Your task to perform on an android device: turn off javascript in the chrome app Image 0: 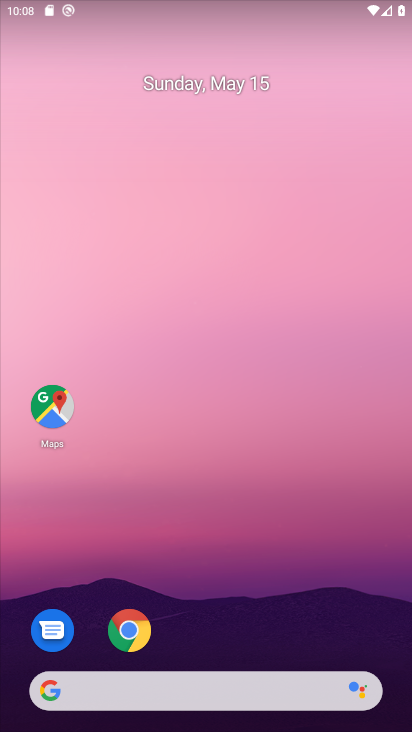
Step 0: click (125, 625)
Your task to perform on an android device: turn off javascript in the chrome app Image 1: 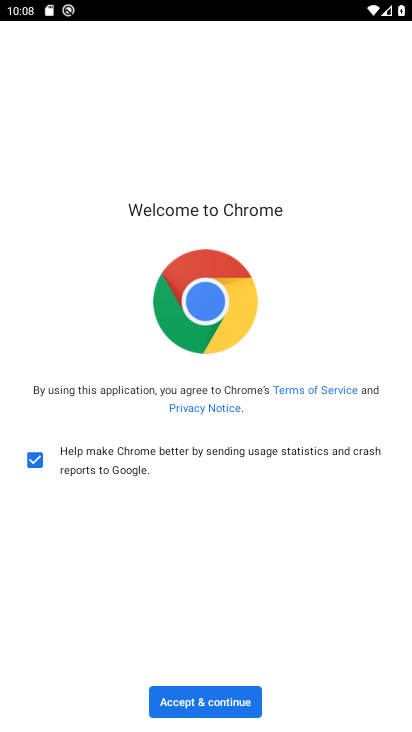
Step 1: click (201, 698)
Your task to perform on an android device: turn off javascript in the chrome app Image 2: 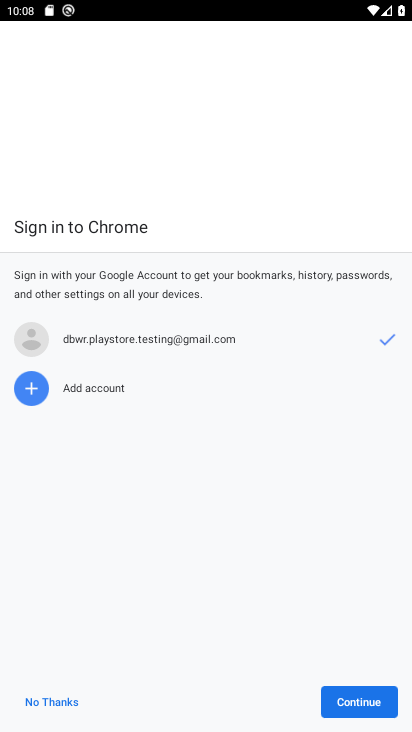
Step 2: click (361, 701)
Your task to perform on an android device: turn off javascript in the chrome app Image 3: 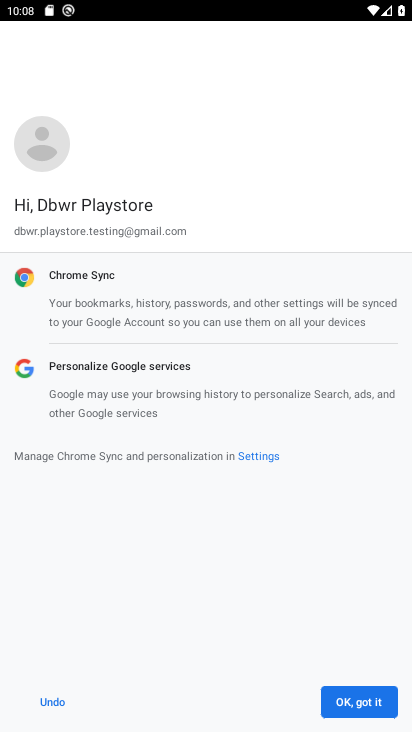
Step 3: click (358, 707)
Your task to perform on an android device: turn off javascript in the chrome app Image 4: 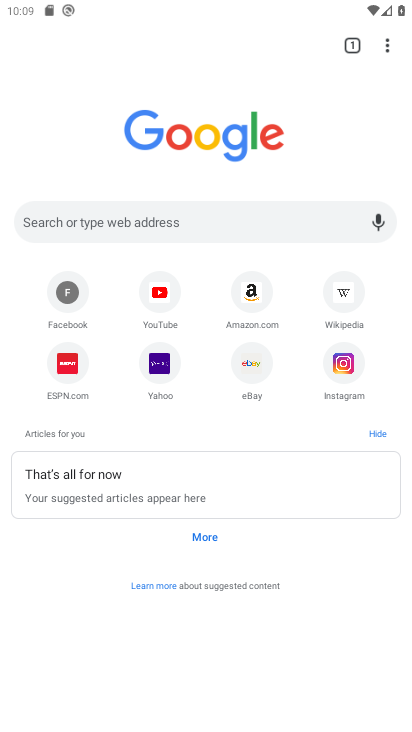
Step 4: click (386, 41)
Your task to perform on an android device: turn off javascript in the chrome app Image 5: 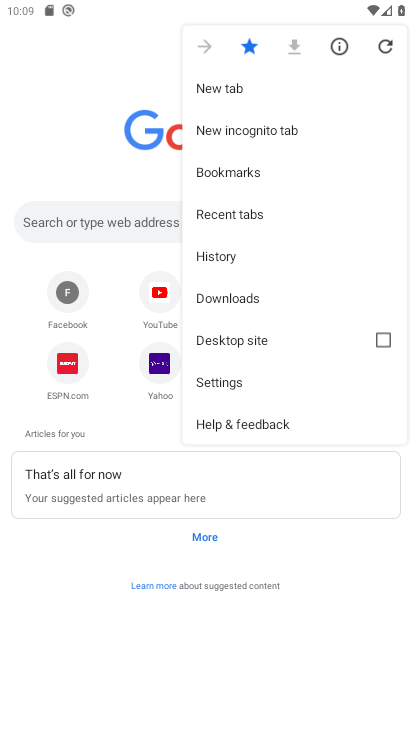
Step 5: click (249, 381)
Your task to perform on an android device: turn off javascript in the chrome app Image 6: 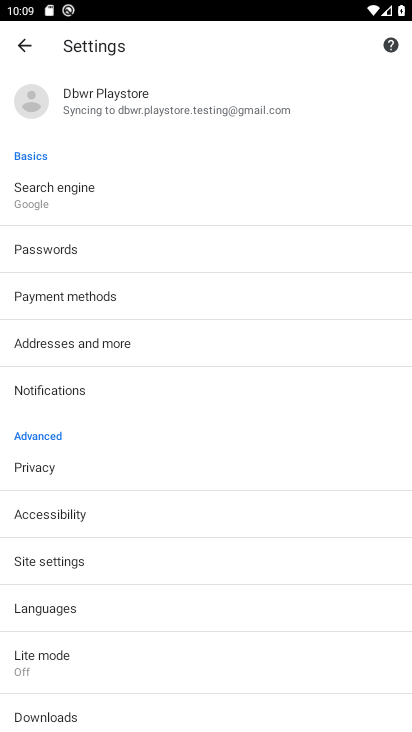
Step 6: click (91, 556)
Your task to perform on an android device: turn off javascript in the chrome app Image 7: 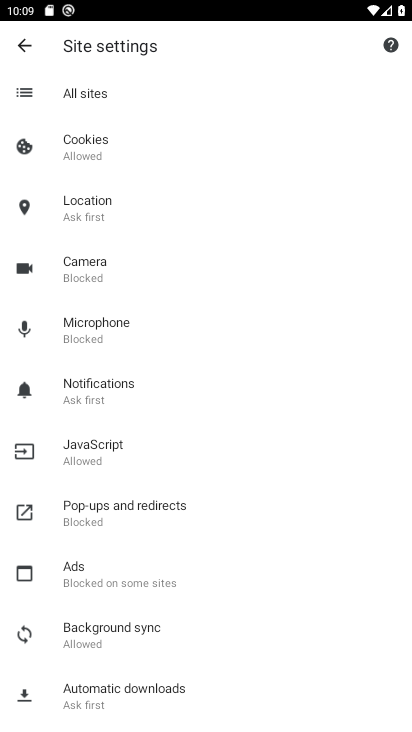
Step 7: click (133, 449)
Your task to perform on an android device: turn off javascript in the chrome app Image 8: 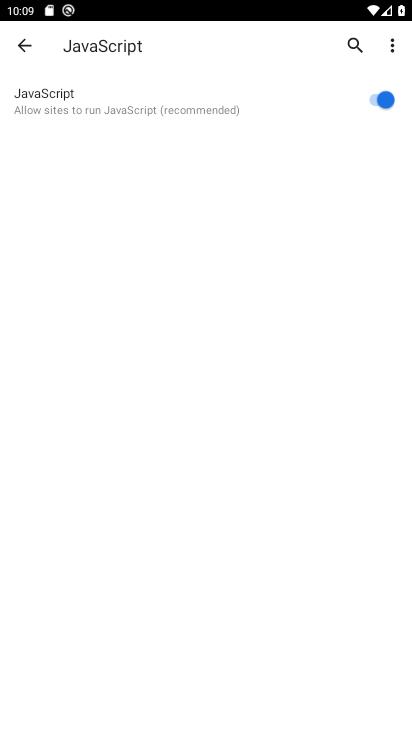
Step 8: click (379, 94)
Your task to perform on an android device: turn off javascript in the chrome app Image 9: 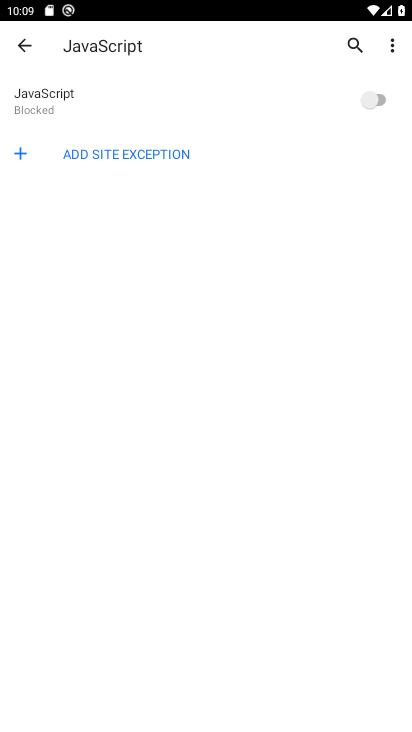
Step 9: task complete